Your task to perform on an android device: turn off improve location accuracy Image 0: 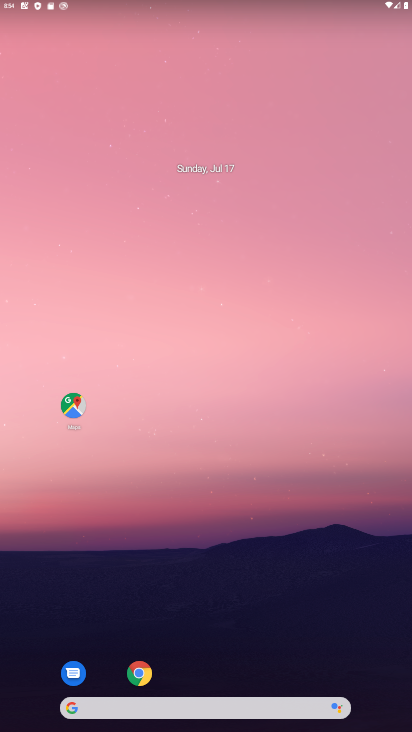
Step 0: drag from (273, 548) to (271, 21)
Your task to perform on an android device: turn off improve location accuracy Image 1: 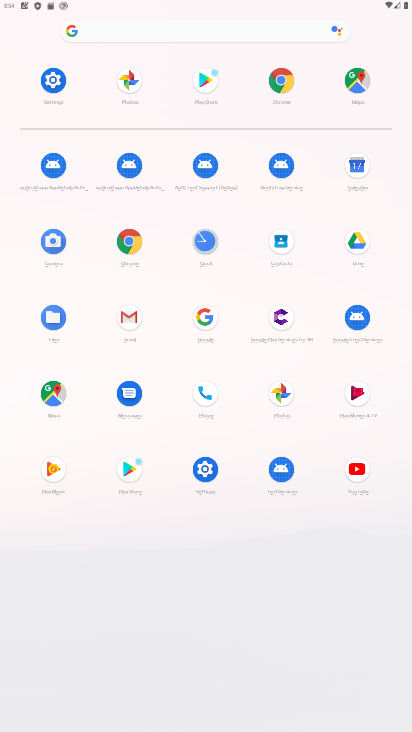
Step 1: click (63, 84)
Your task to perform on an android device: turn off improve location accuracy Image 2: 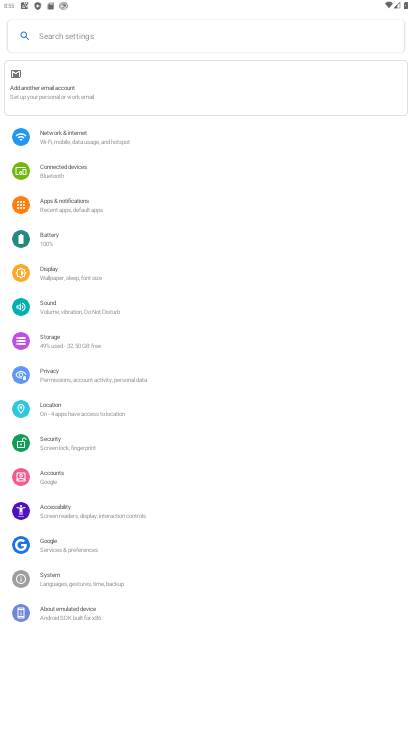
Step 2: click (64, 416)
Your task to perform on an android device: turn off improve location accuracy Image 3: 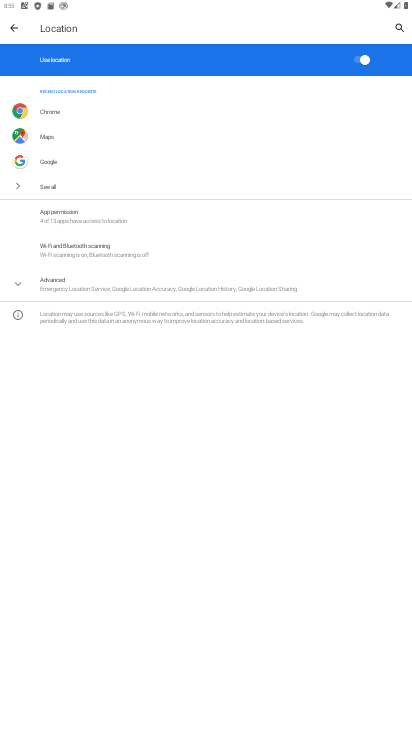
Step 3: click (56, 285)
Your task to perform on an android device: turn off improve location accuracy Image 4: 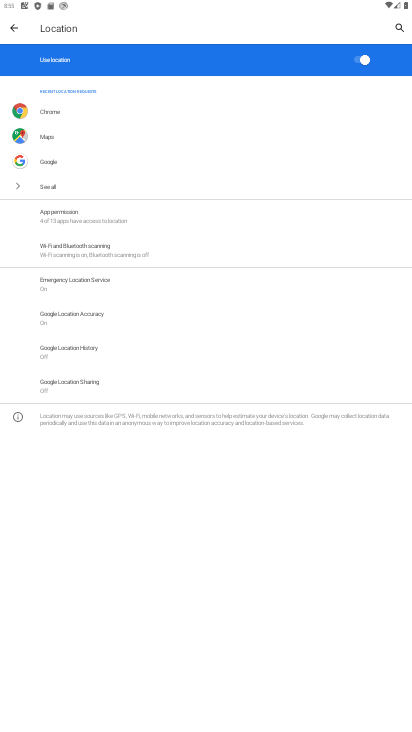
Step 4: click (99, 315)
Your task to perform on an android device: turn off improve location accuracy Image 5: 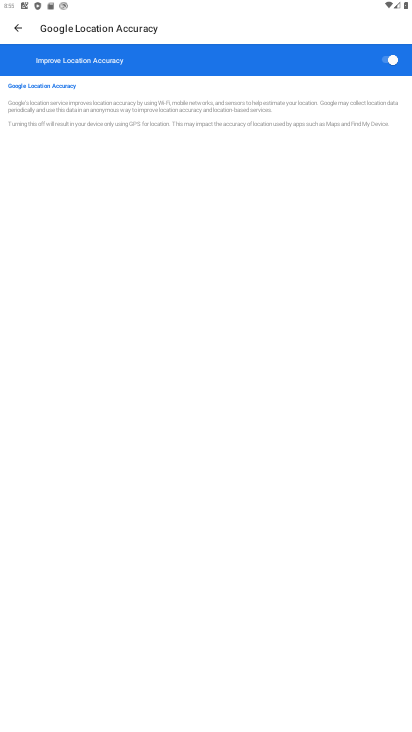
Step 5: click (388, 56)
Your task to perform on an android device: turn off improve location accuracy Image 6: 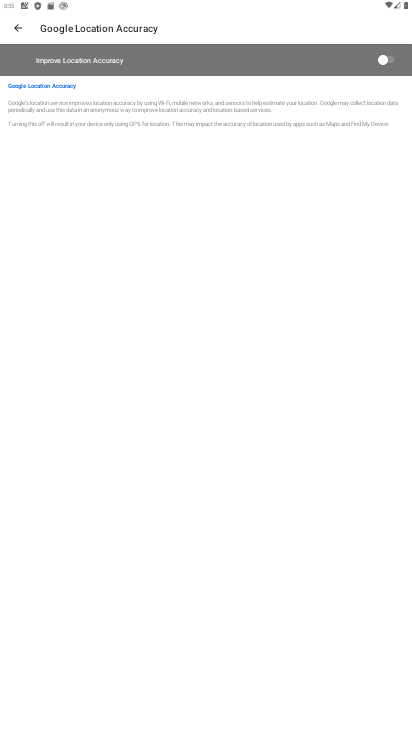
Step 6: task complete